Your task to perform on an android device: What is the news today? Image 0: 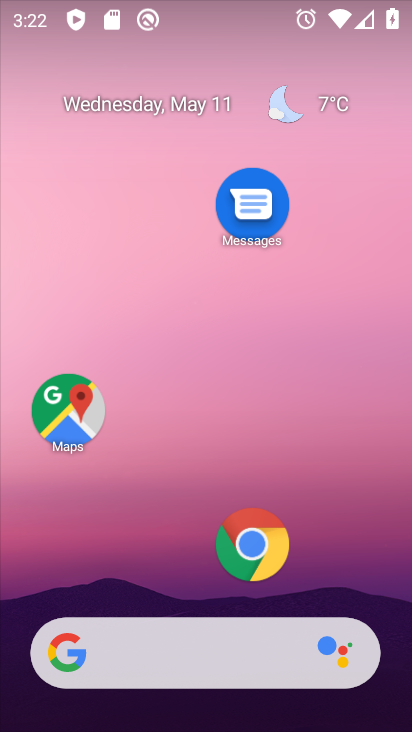
Step 0: click (146, 665)
Your task to perform on an android device: What is the news today? Image 1: 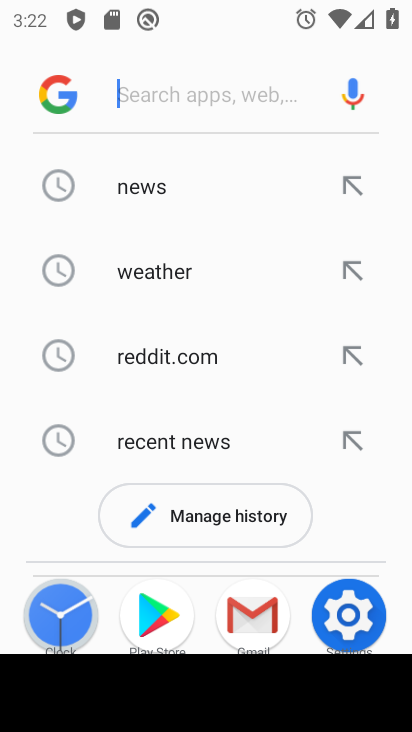
Step 1: click (172, 182)
Your task to perform on an android device: What is the news today? Image 2: 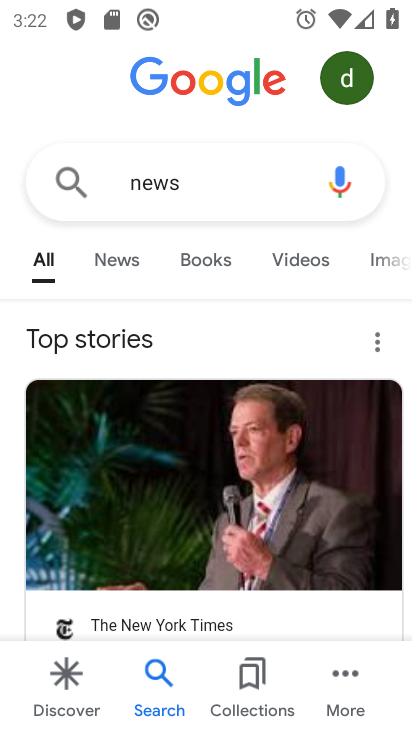
Step 2: task complete